Your task to perform on an android device: Show the shopping cart on walmart. Image 0: 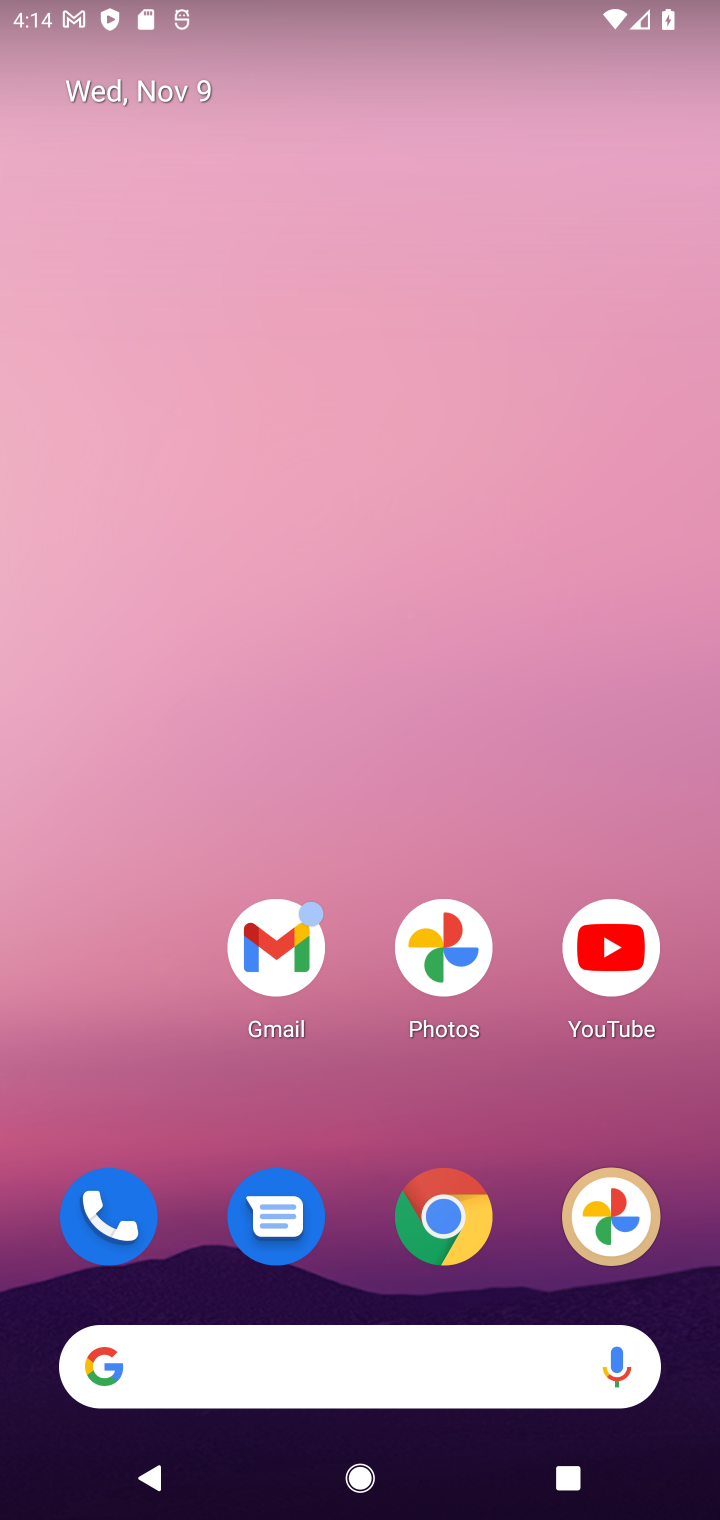
Step 0: drag from (353, 947) to (479, 148)
Your task to perform on an android device: Show the shopping cart on walmart. Image 1: 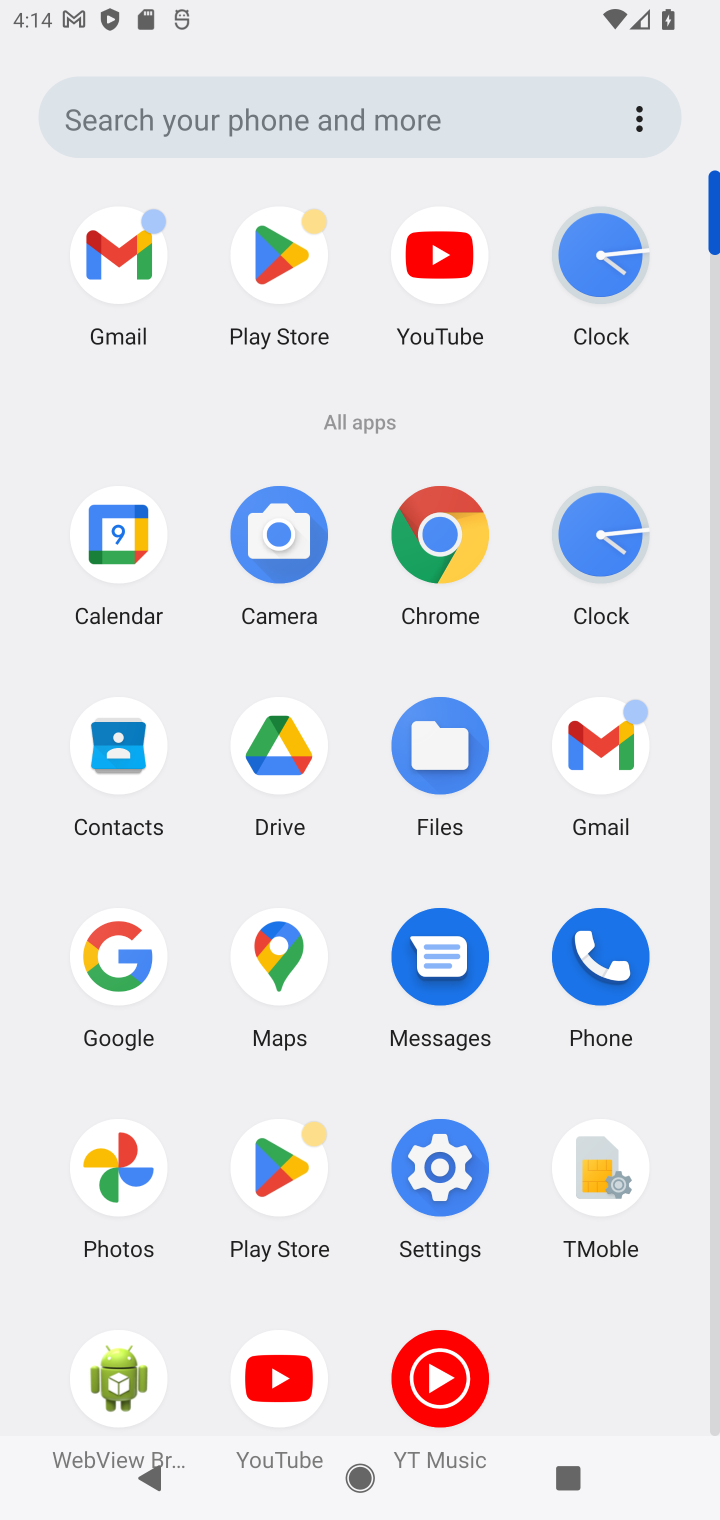
Step 1: click (439, 541)
Your task to perform on an android device: Show the shopping cart on walmart. Image 2: 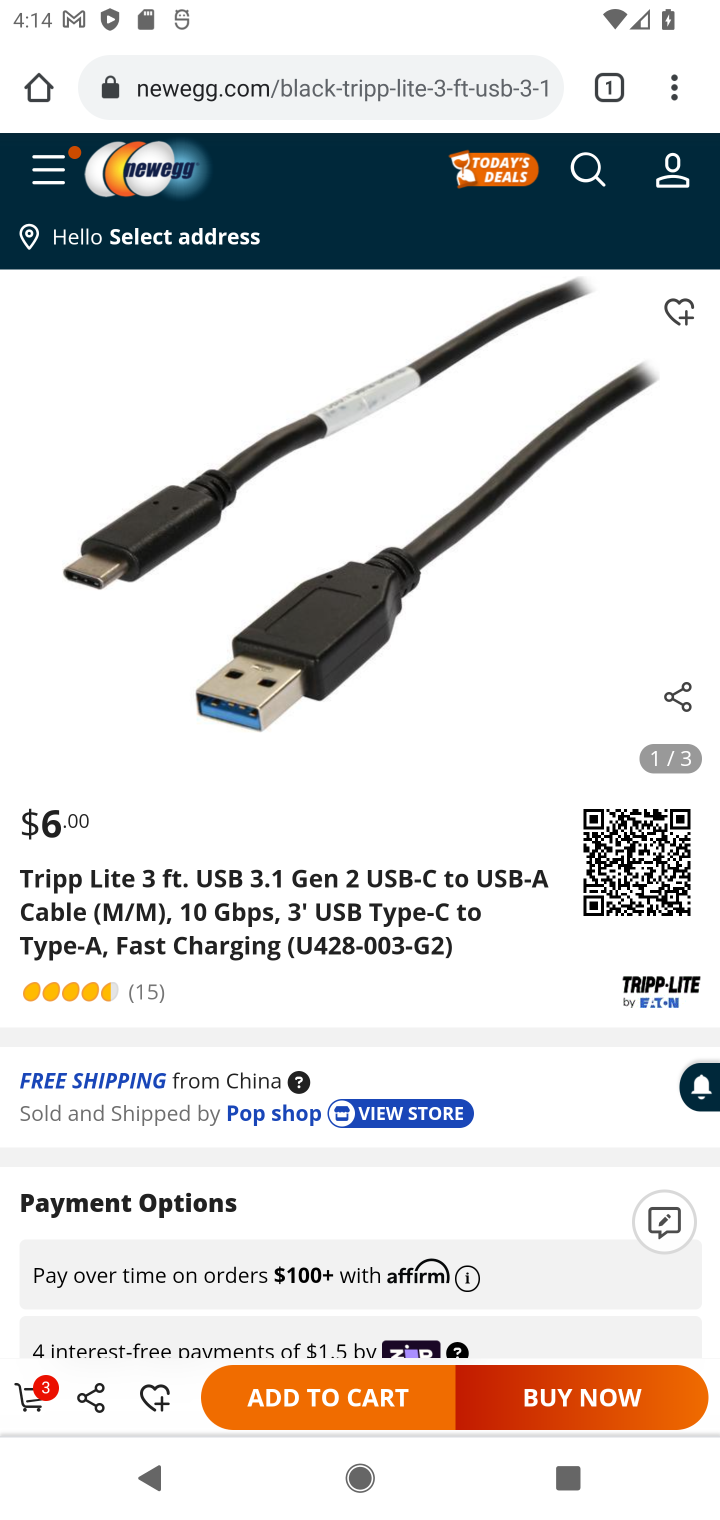
Step 2: click (394, 86)
Your task to perform on an android device: Show the shopping cart on walmart. Image 3: 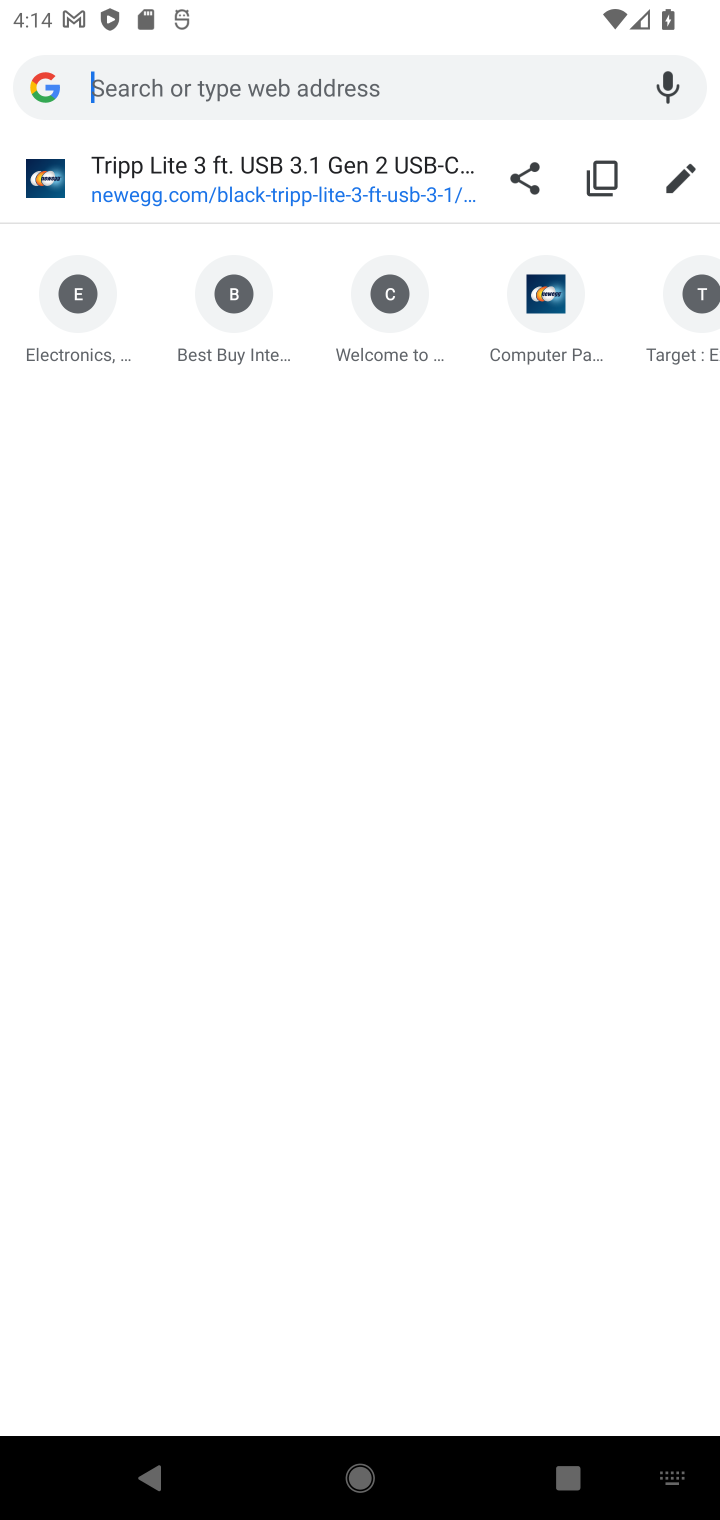
Step 3: type "walmart.com"
Your task to perform on an android device: Show the shopping cart on walmart. Image 4: 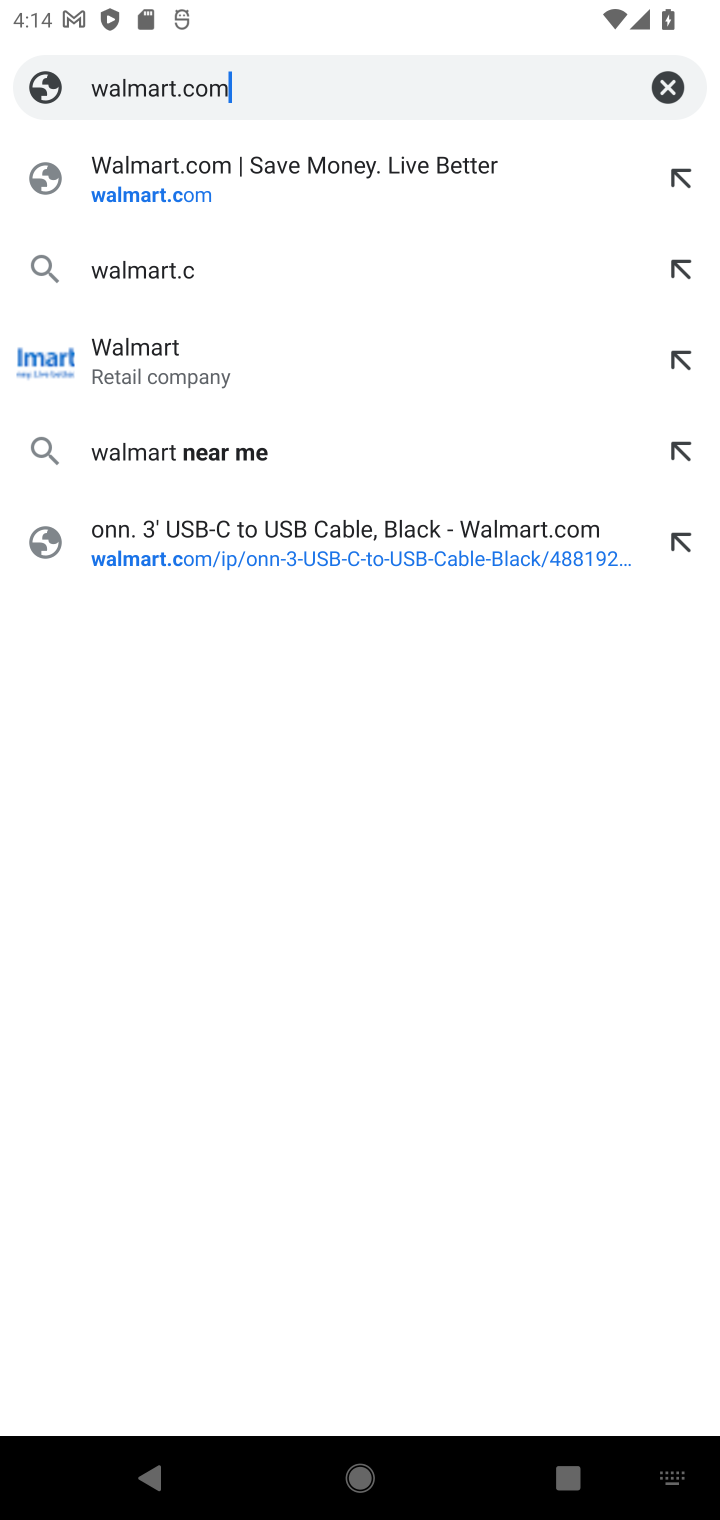
Step 4: press enter
Your task to perform on an android device: Show the shopping cart on walmart. Image 5: 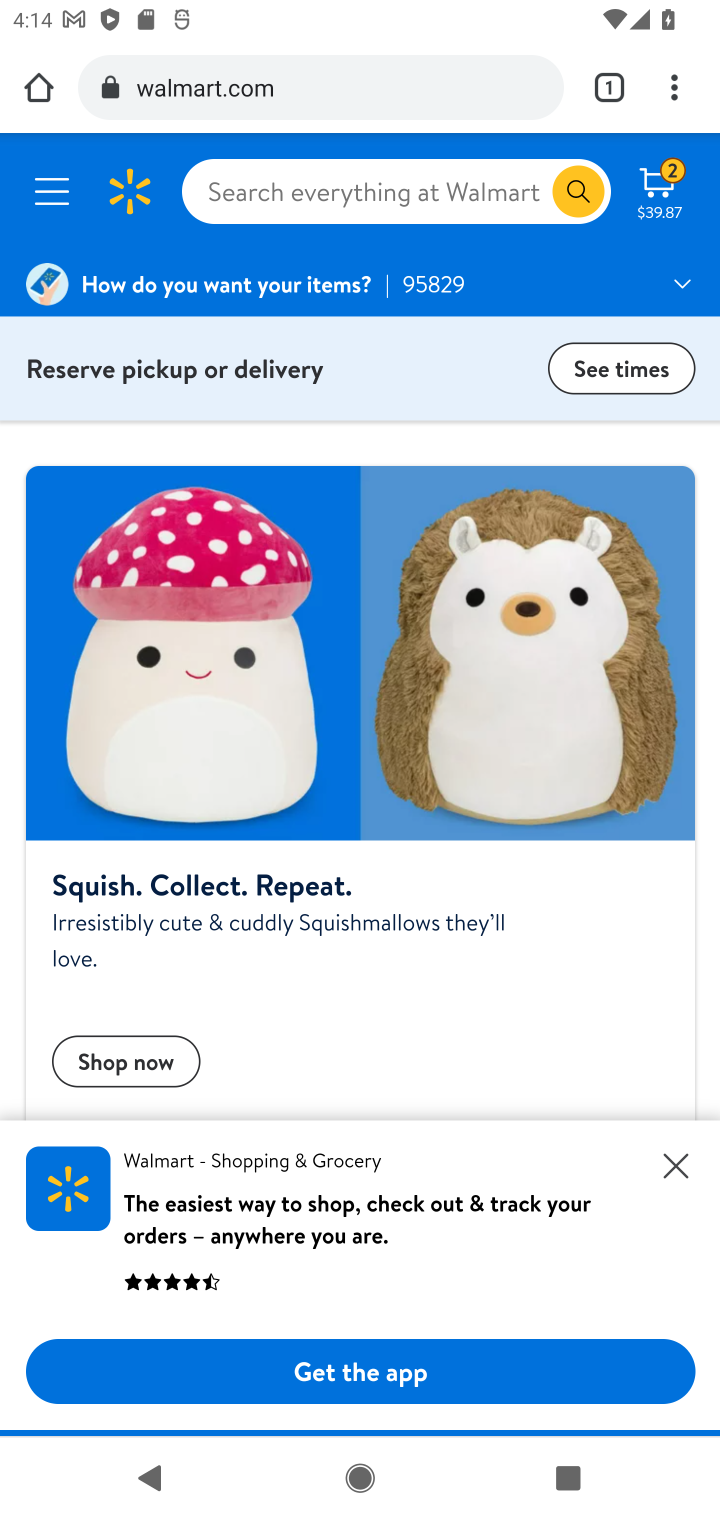
Step 5: click (667, 187)
Your task to perform on an android device: Show the shopping cart on walmart. Image 6: 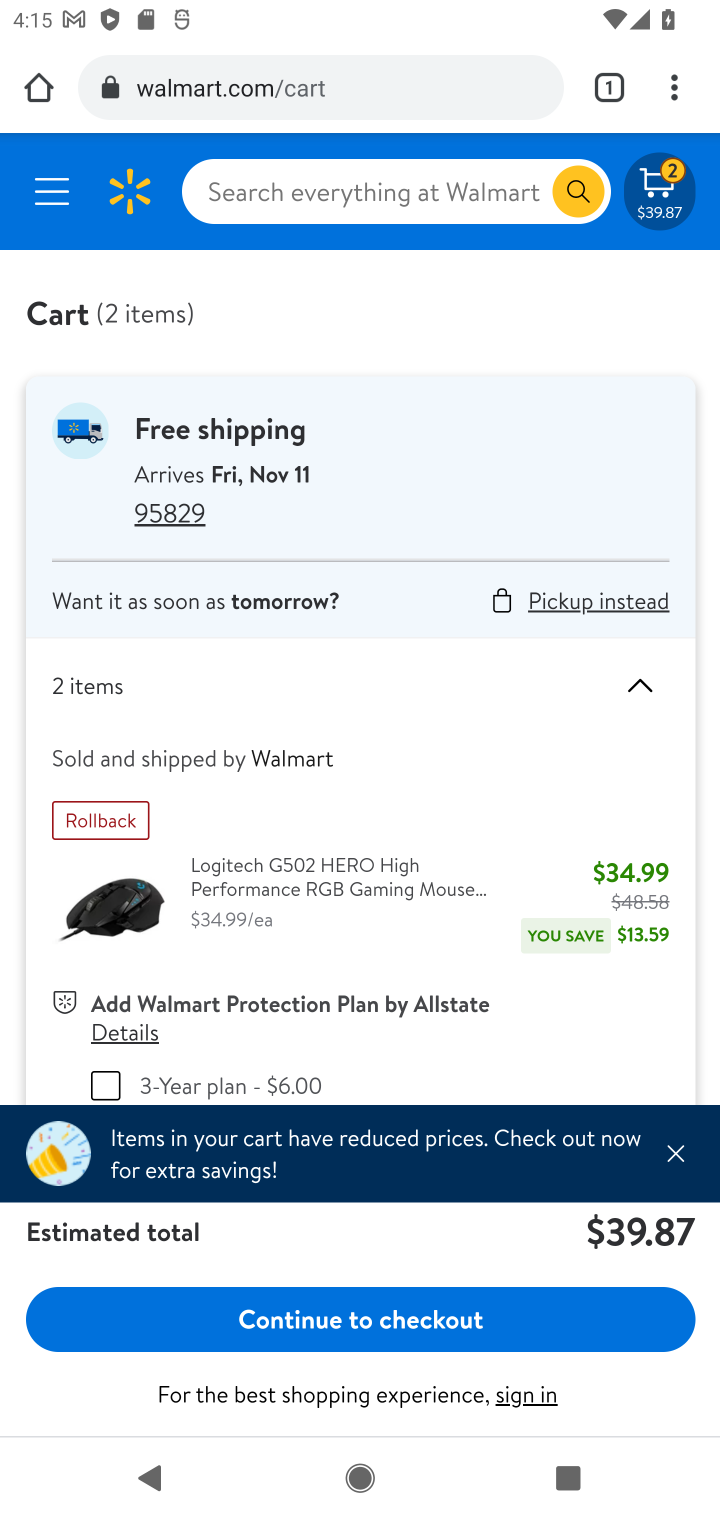
Step 6: task complete